Your task to perform on an android device: open app "Fetch Rewards" (install if not already installed) and go to login screen Image 0: 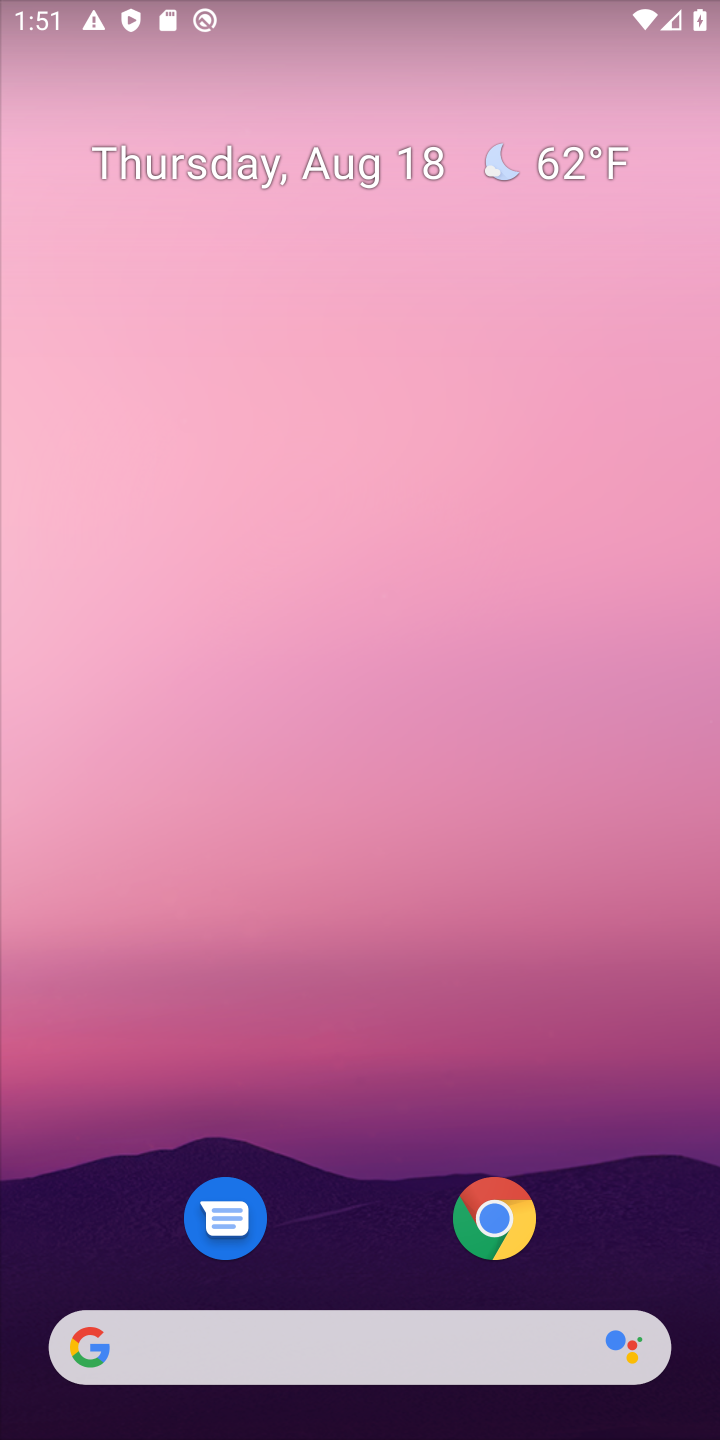
Step 0: drag from (338, 1083) to (439, 279)
Your task to perform on an android device: open app "Fetch Rewards" (install if not already installed) and go to login screen Image 1: 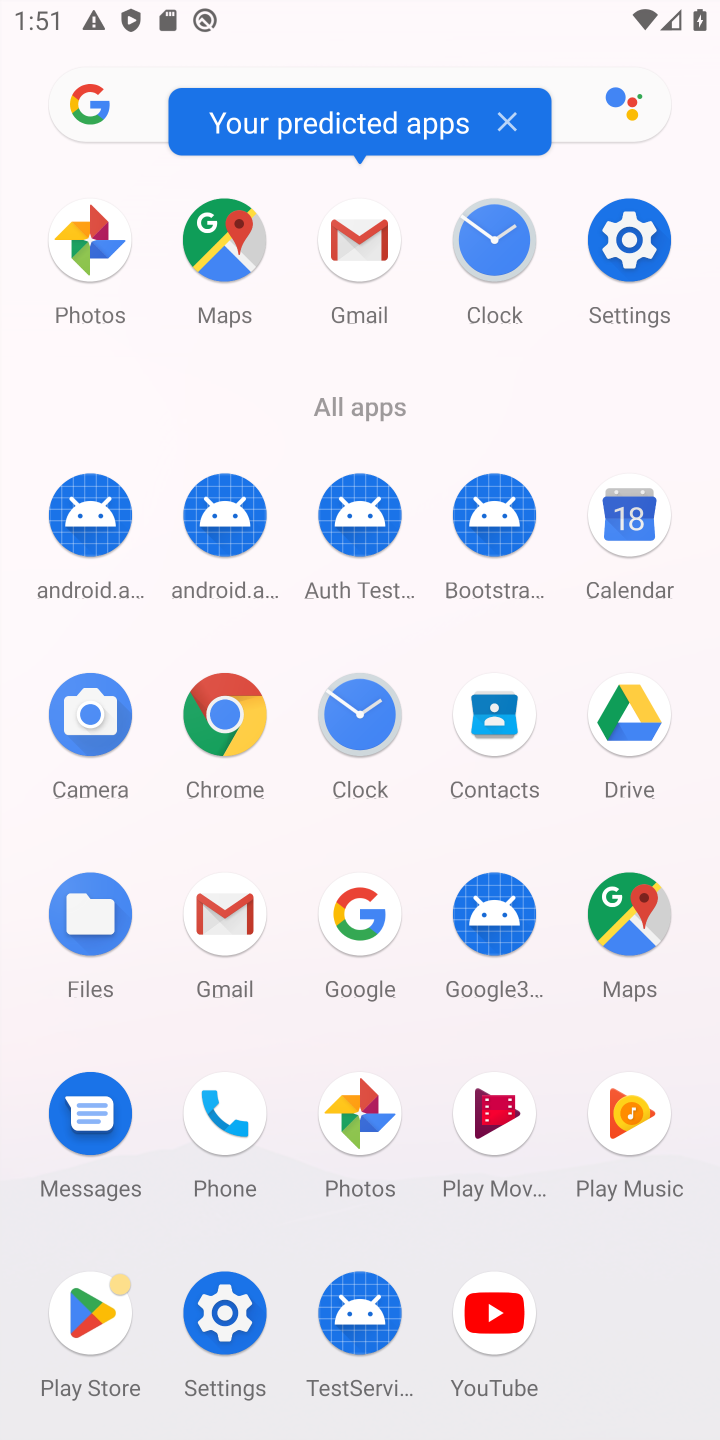
Step 1: click (100, 1270)
Your task to perform on an android device: open app "Fetch Rewards" (install if not already installed) and go to login screen Image 2: 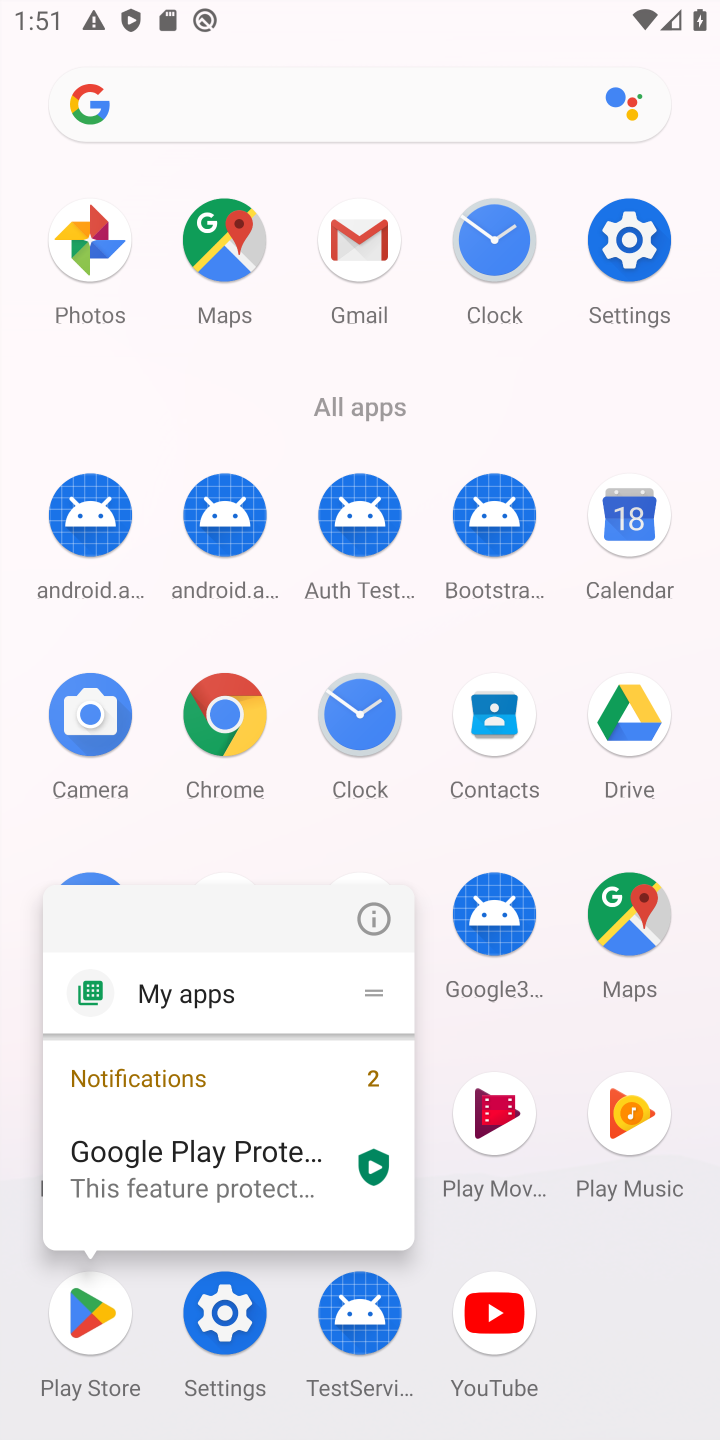
Step 2: click (78, 1326)
Your task to perform on an android device: open app "Fetch Rewards" (install if not already installed) and go to login screen Image 3: 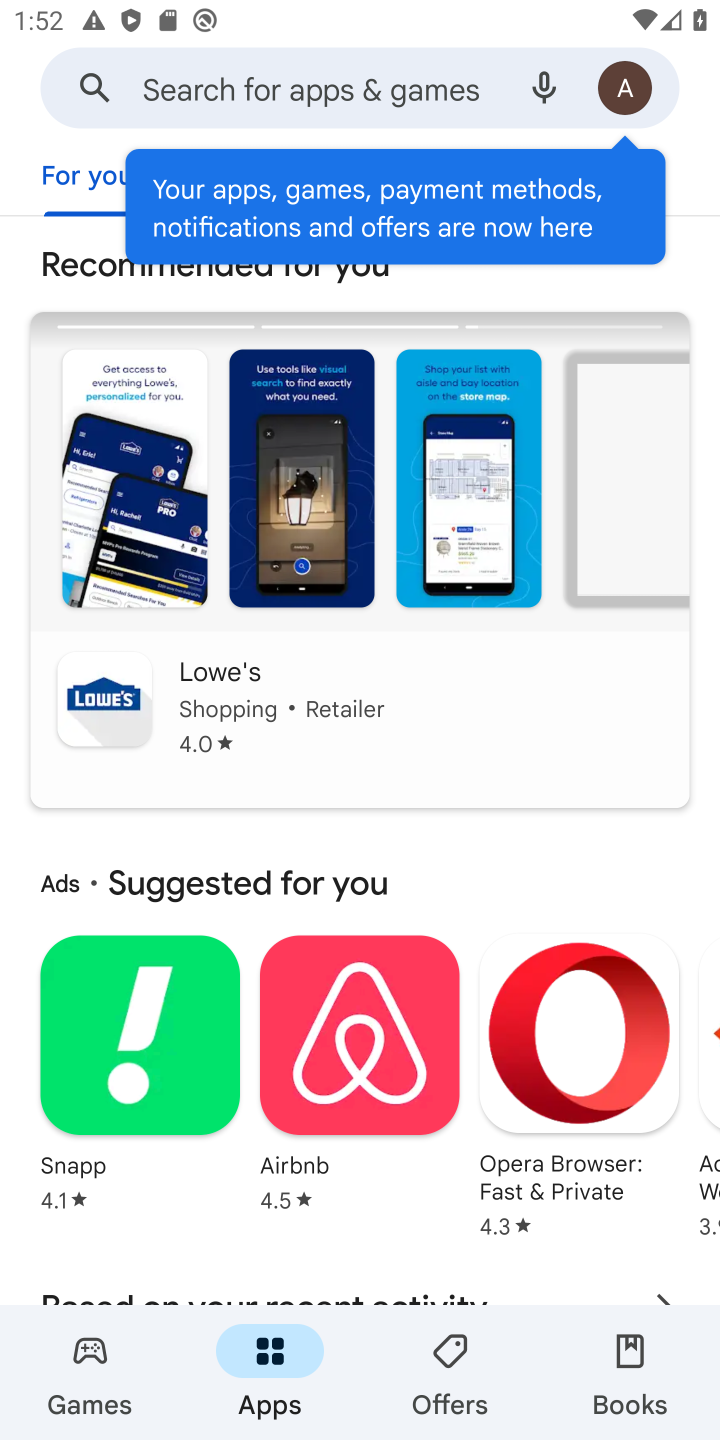
Step 3: click (240, 87)
Your task to perform on an android device: open app "Fetch Rewards" (install if not already installed) and go to login screen Image 4: 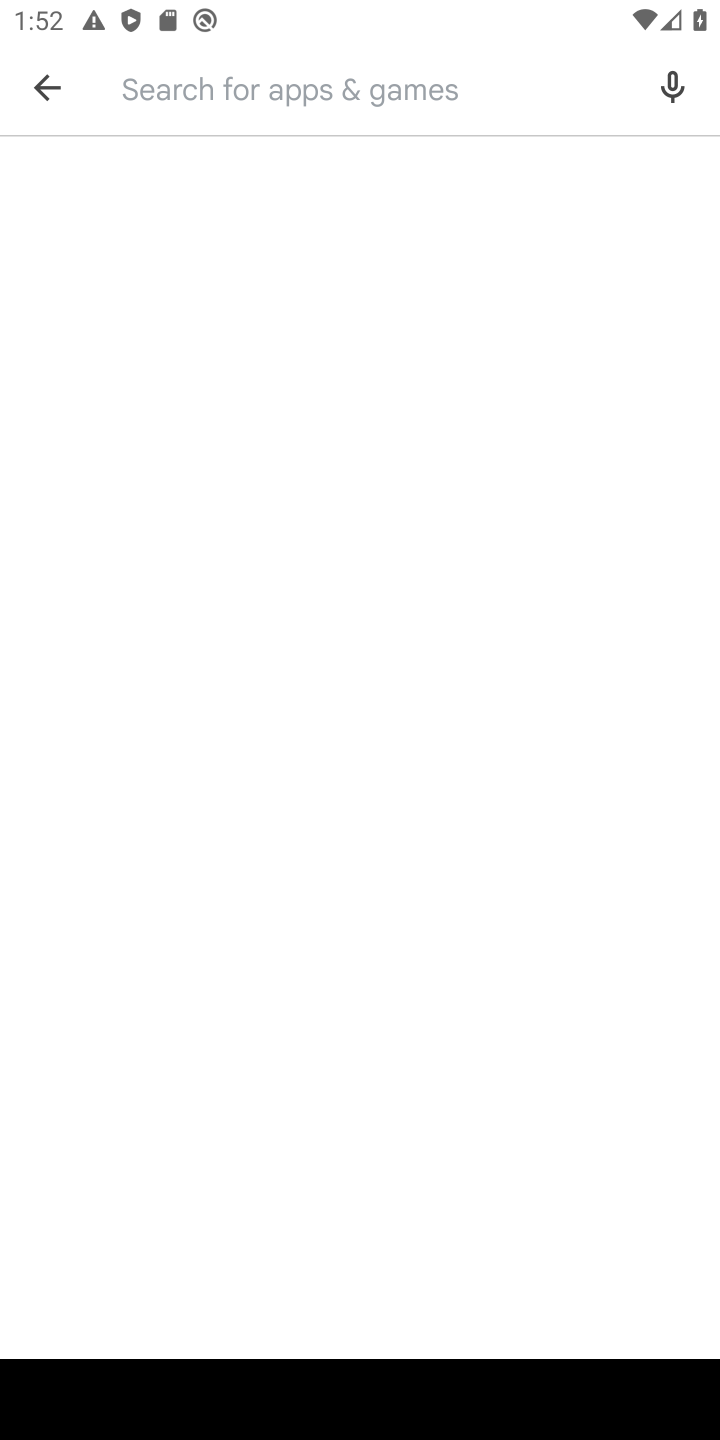
Step 4: type "Fetch Rewards"
Your task to perform on an android device: open app "Fetch Rewards" (install if not already installed) and go to login screen Image 5: 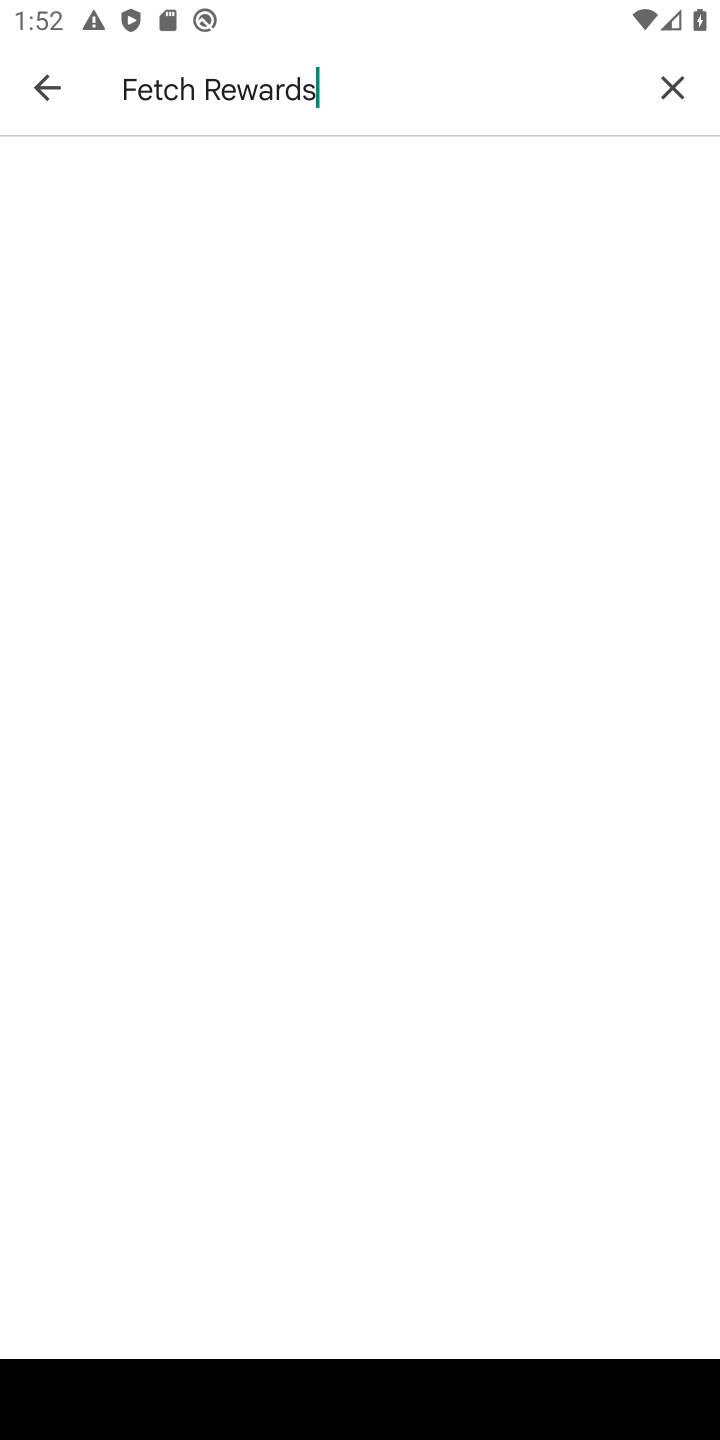
Step 5: type ""
Your task to perform on an android device: open app "Fetch Rewards" (install if not already installed) and go to login screen Image 6: 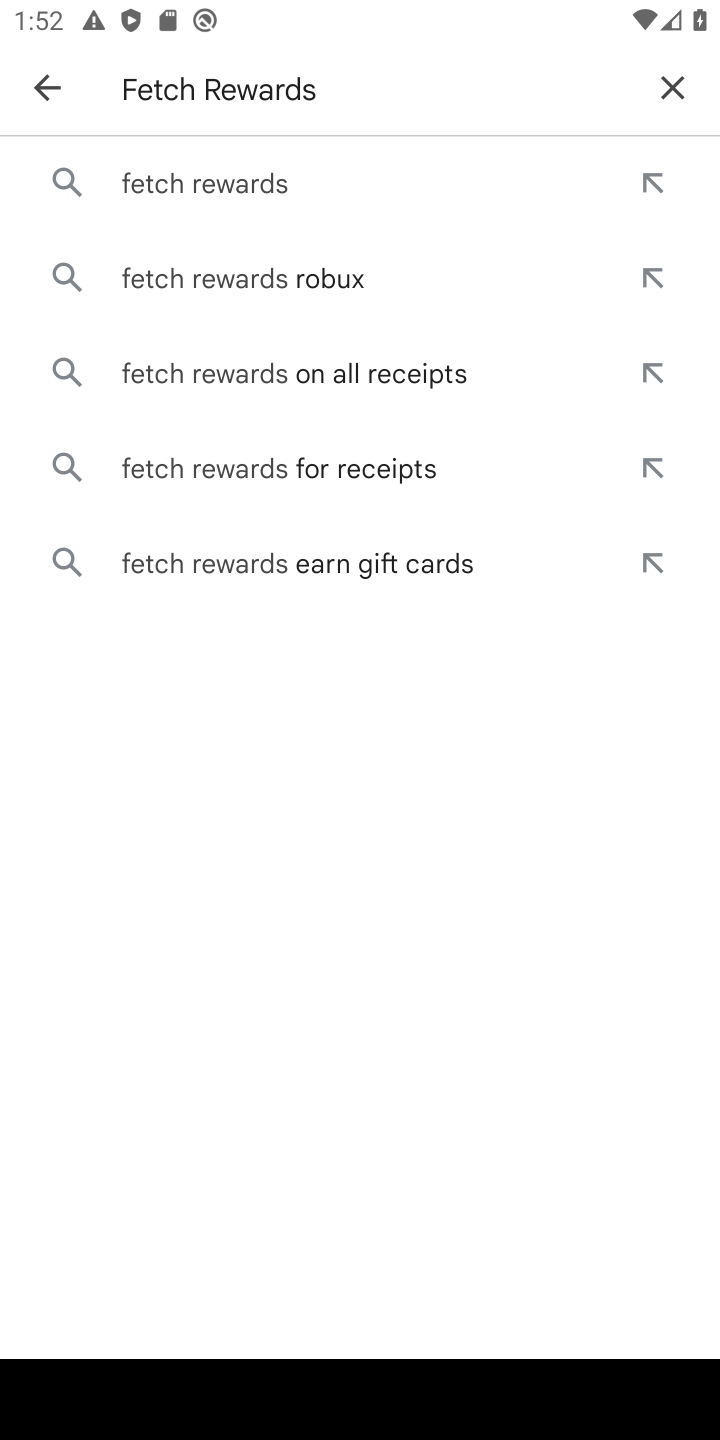
Step 6: click (252, 205)
Your task to perform on an android device: open app "Fetch Rewards" (install if not already installed) and go to login screen Image 7: 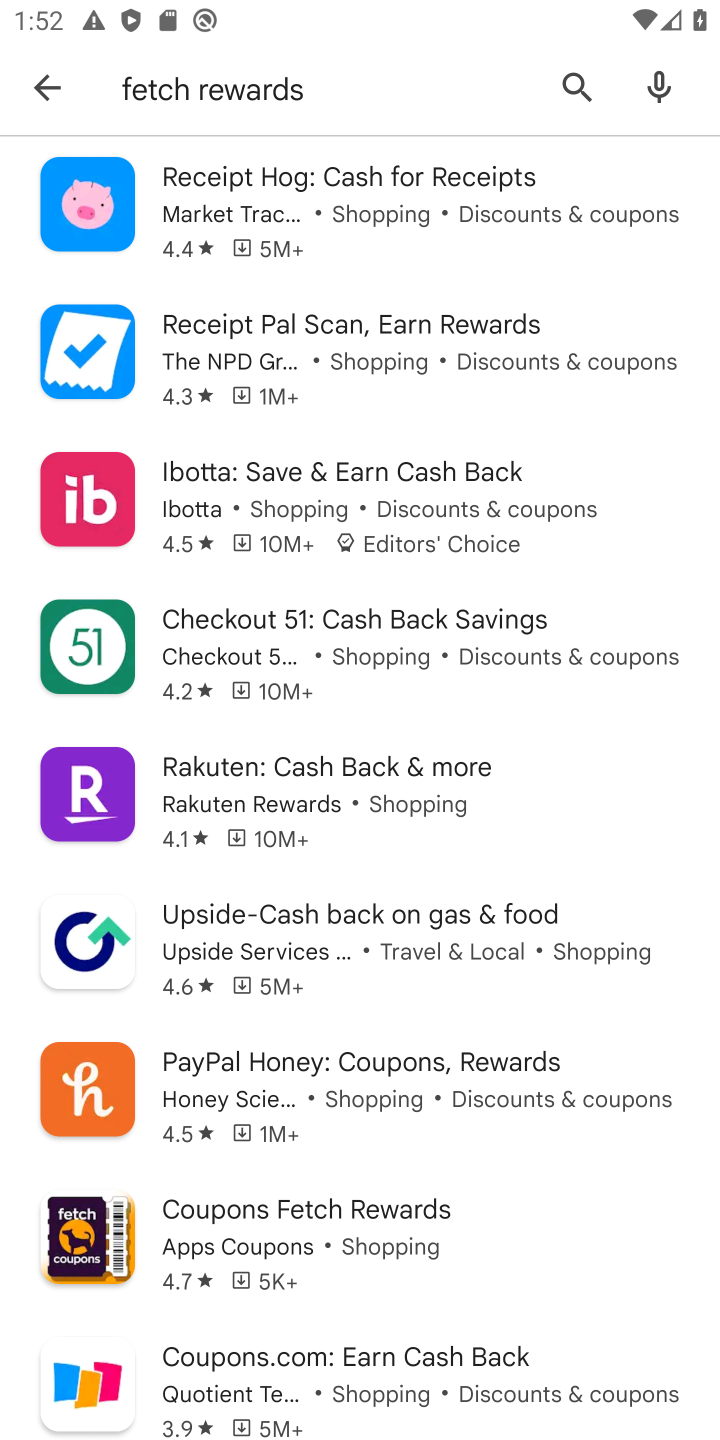
Step 7: task complete